Your task to perform on an android device: clear history in the chrome app Image 0: 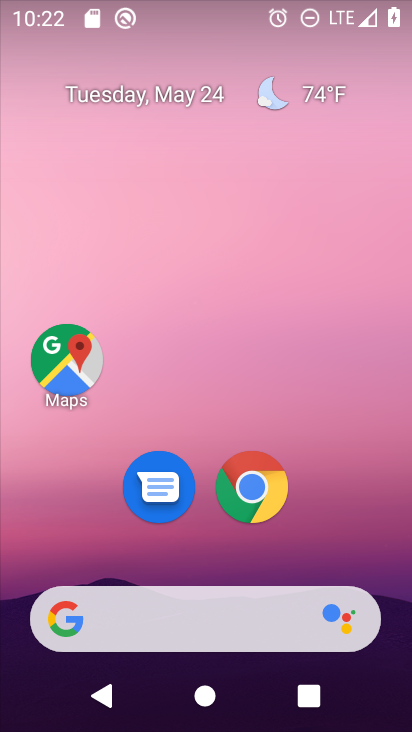
Step 0: click (259, 492)
Your task to perform on an android device: clear history in the chrome app Image 1: 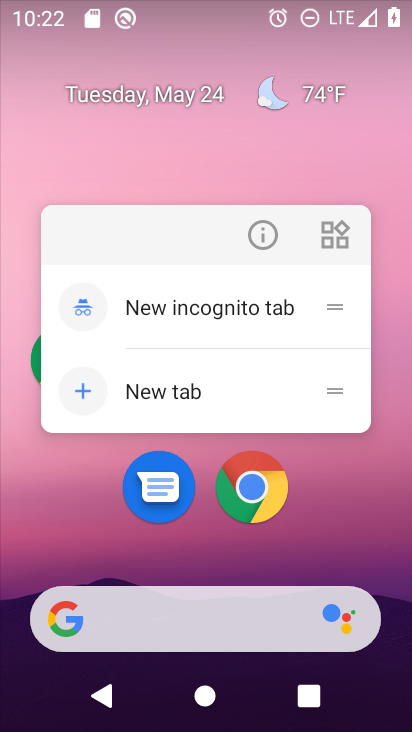
Step 1: click (259, 492)
Your task to perform on an android device: clear history in the chrome app Image 2: 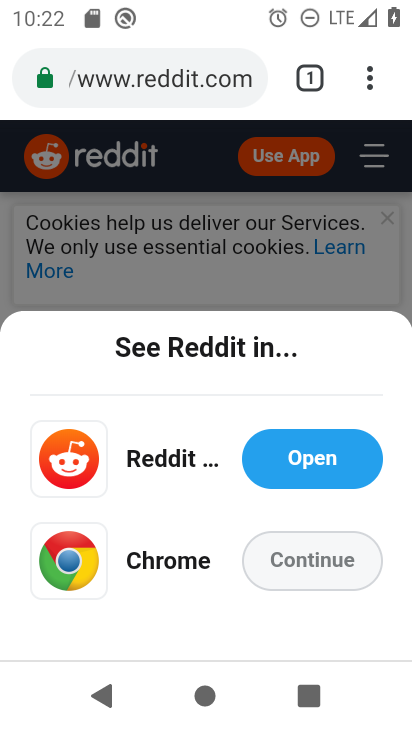
Step 2: click (369, 79)
Your task to perform on an android device: clear history in the chrome app Image 3: 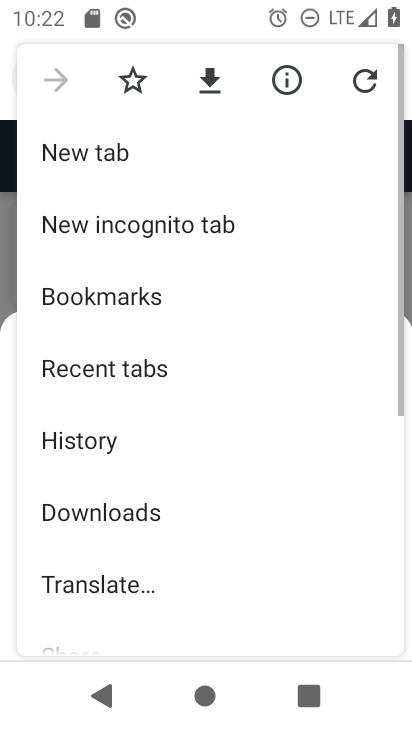
Step 3: click (369, 79)
Your task to perform on an android device: clear history in the chrome app Image 4: 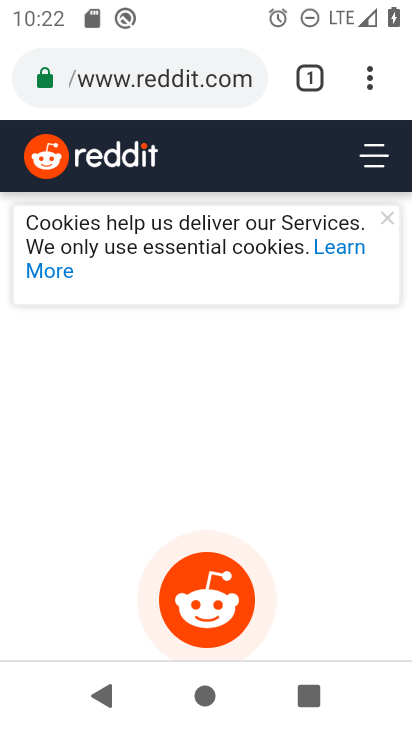
Step 4: click (374, 79)
Your task to perform on an android device: clear history in the chrome app Image 5: 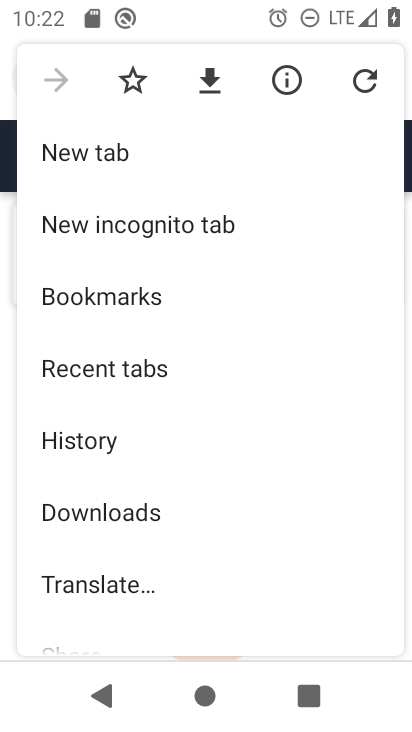
Step 5: click (106, 444)
Your task to perform on an android device: clear history in the chrome app Image 6: 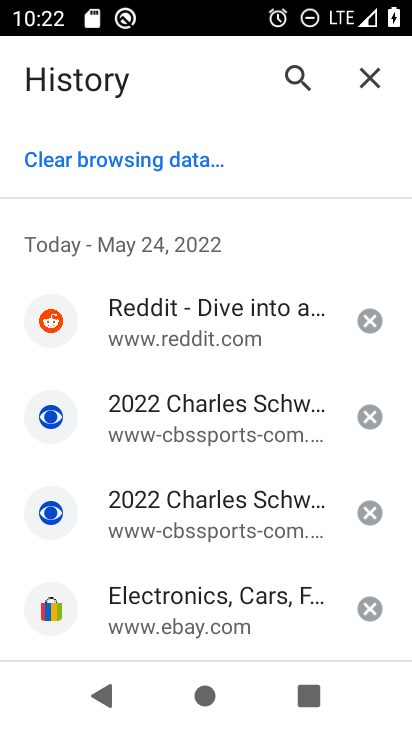
Step 6: click (108, 163)
Your task to perform on an android device: clear history in the chrome app Image 7: 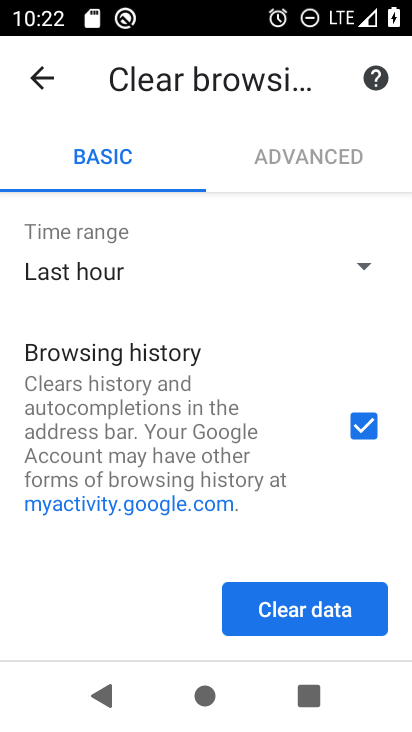
Step 7: drag from (195, 405) to (178, 152)
Your task to perform on an android device: clear history in the chrome app Image 8: 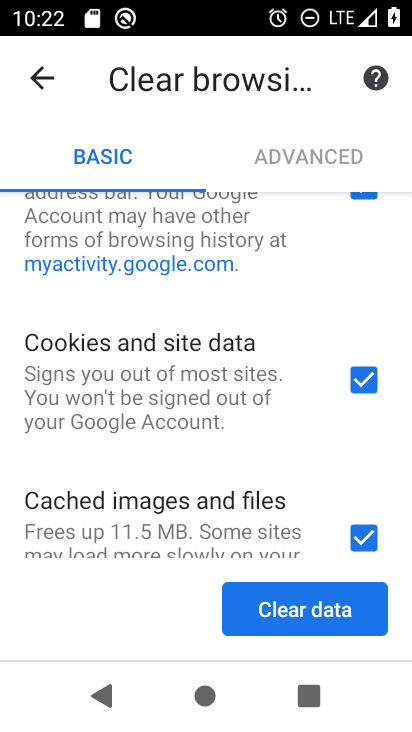
Step 8: click (358, 383)
Your task to perform on an android device: clear history in the chrome app Image 9: 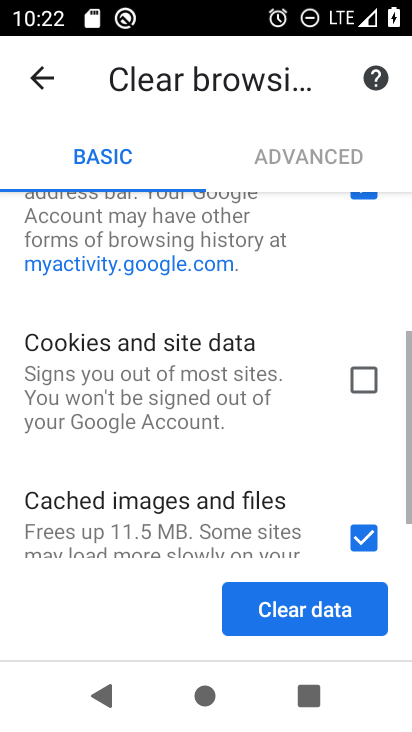
Step 9: click (373, 539)
Your task to perform on an android device: clear history in the chrome app Image 10: 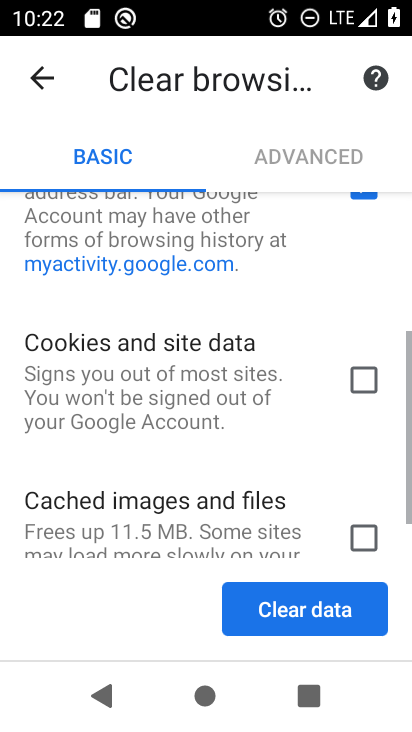
Step 10: drag from (253, 497) to (216, 181)
Your task to perform on an android device: clear history in the chrome app Image 11: 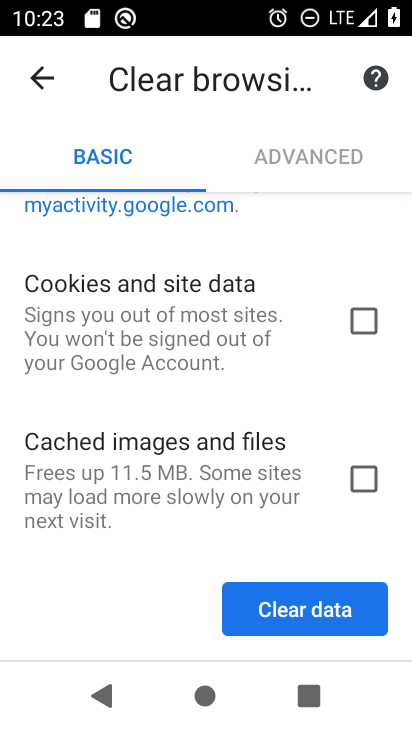
Step 11: drag from (142, 494) to (135, 533)
Your task to perform on an android device: clear history in the chrome app Image 12: 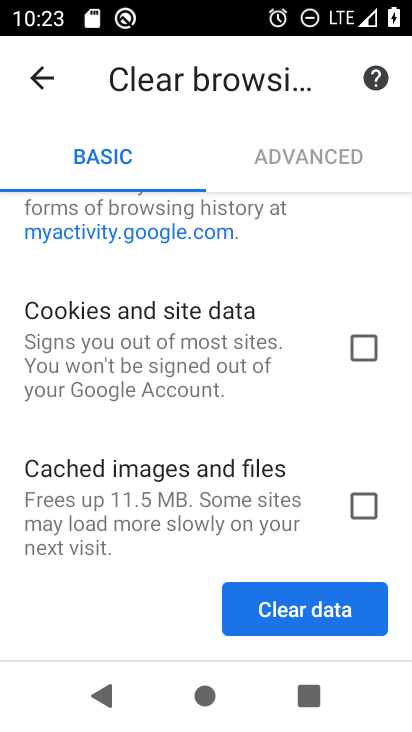
Step 12: drag from (142, 409) to (136, 460)
Your task to perform on an android device: clear history in the chrome app Image 13: 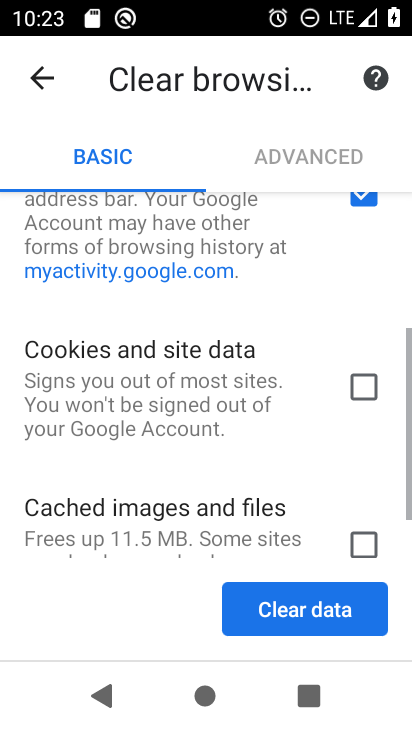
Step 13: drag from (221, 271) to (208, 427)
Your task to perform on an android device: clear history in the chrome app Image 14: 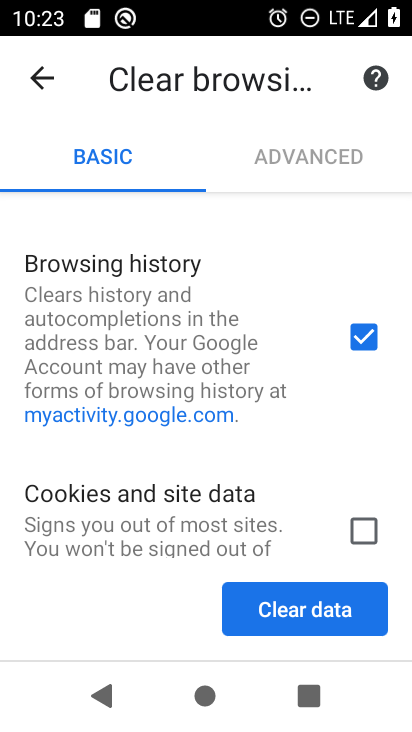
Step 14: click (327, 606)
Your task to perform on an android device: clear history in the chrome app Image 15: 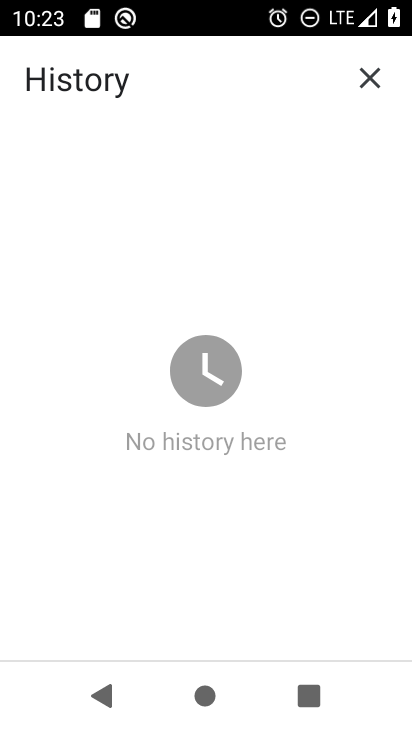
Step 15: task complete